Your task to perform on an android device: Show me popular videos on Youtube Image 0: 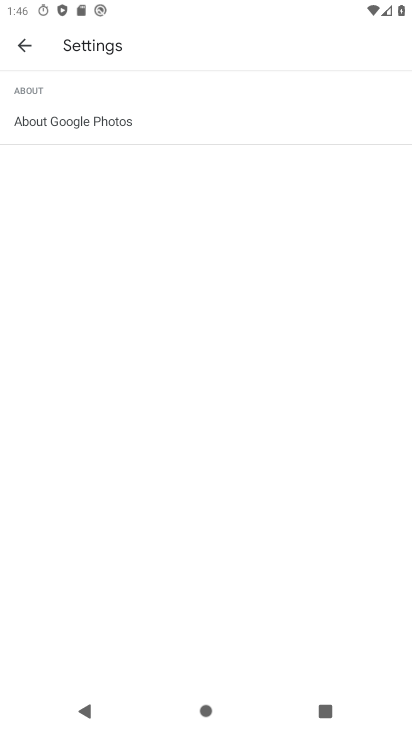
Step 0: press home button
Your task to perform on an android device: Show me popular videos on Youtube Image 1: 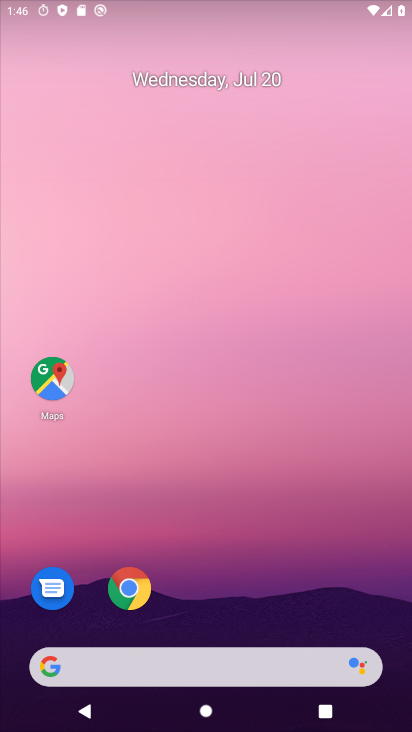
Step 1: drag from (308, 638) to (364, 12)
Your task to perform on an android device: Show me popular videos on Youtube Image 2: 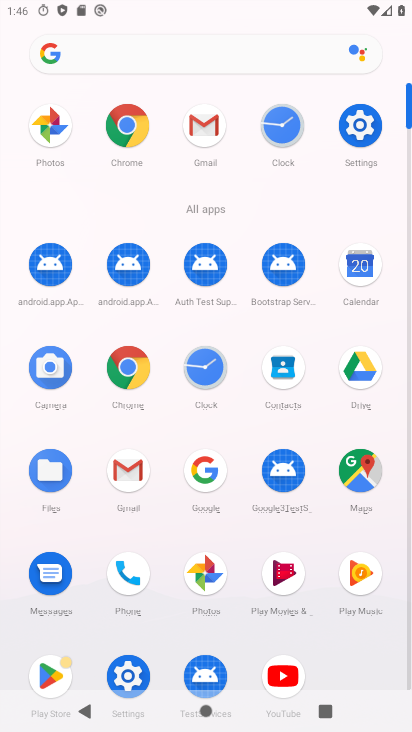
Step 2: click (288, 672)
Your task to perform on an android device: Show me popular videos on Youtube Image 3: 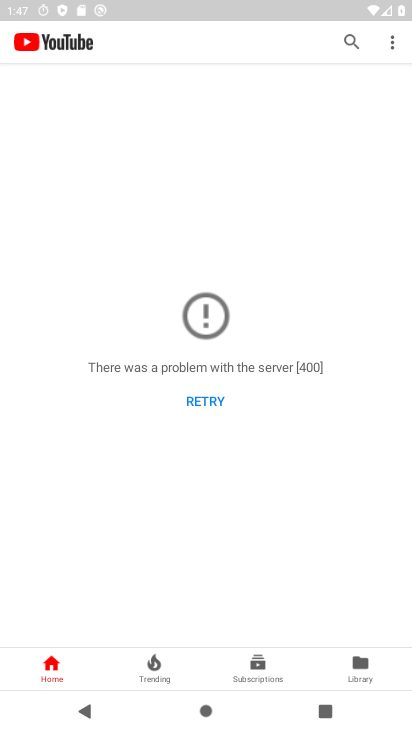
Step 3: click (209, 405)
Your task to perform on an android device: Show me popular videos on Youtube Image 4: 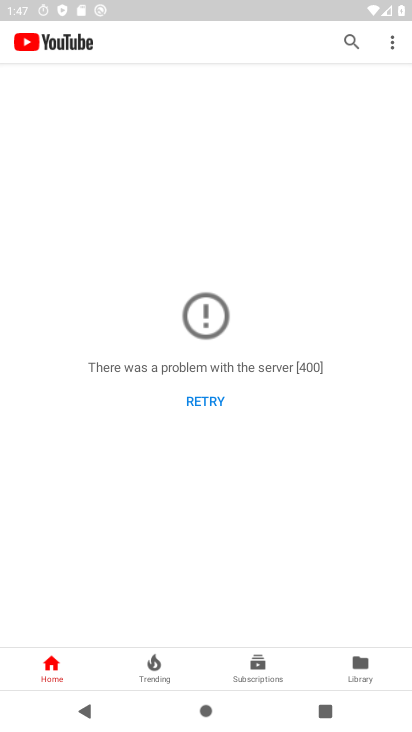
Step 4: task complete